Your task to perform on an android device: stop showing notifications on the lock screen Image 0: 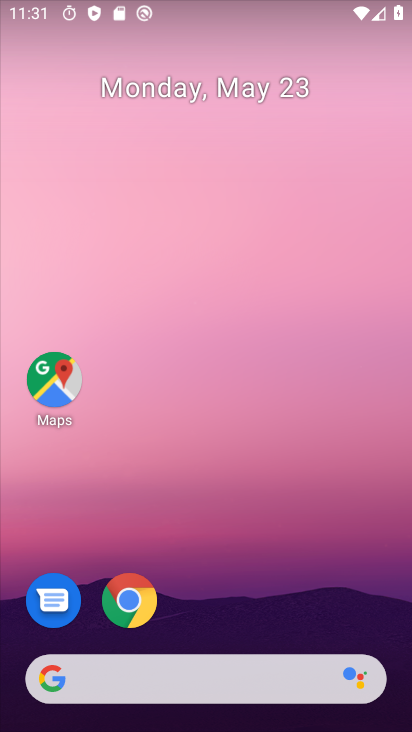
Step 0: drag from (220, 595) to (253, 123)
Your task to perform on an android device: stop showing notifications on the lock screen Image 1: 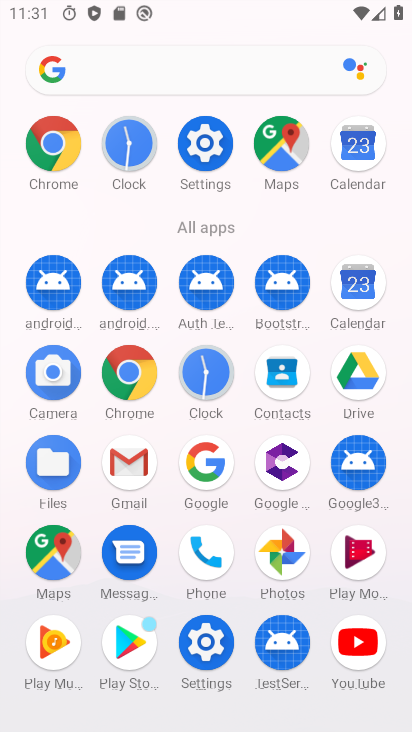
Step 1: click (211, 131)
Your task to perform on an android device: stop showing notifications on the lock screen Image 2: 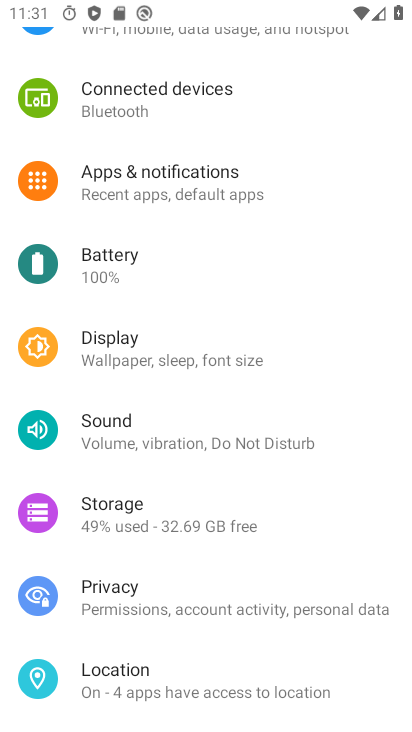
Step 2: click (197, 174)
Your task to perform on an android device: stop showing notifications on the lock screen Image 3: 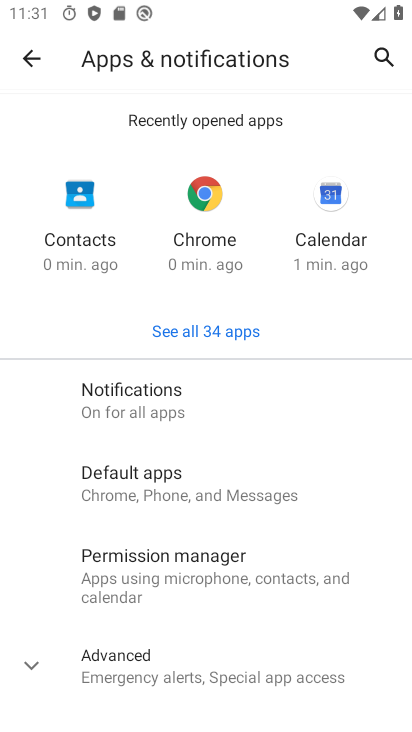
Step 3: click (158, 393)
Your task to perform on an android device: stop showing notifications on the lock screen Image 4: 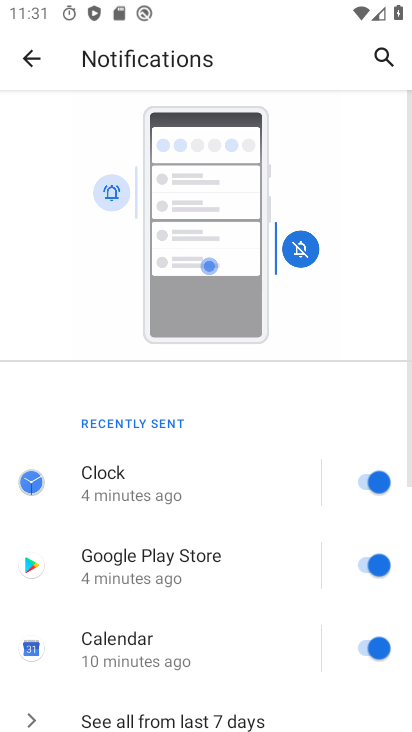
Step 4: drag from (165, 564) to (222, 134)
Your task to perform on an android device: stop showing notifications on the lock screen Image 5: 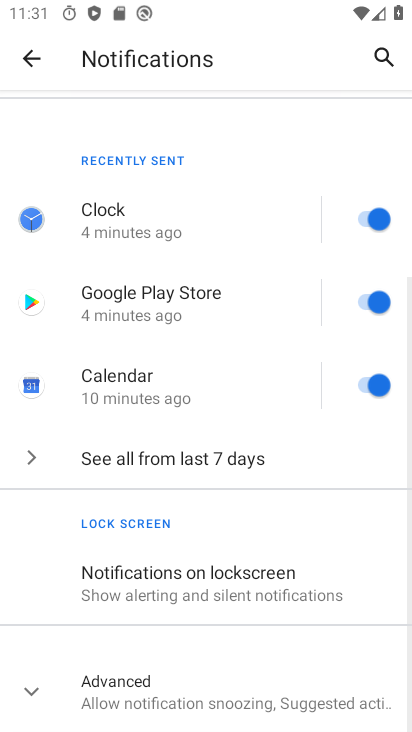
Step 5: click (180, 570)
Your task to perform on an android device: stop showing notifications on the lock screen Image 6: 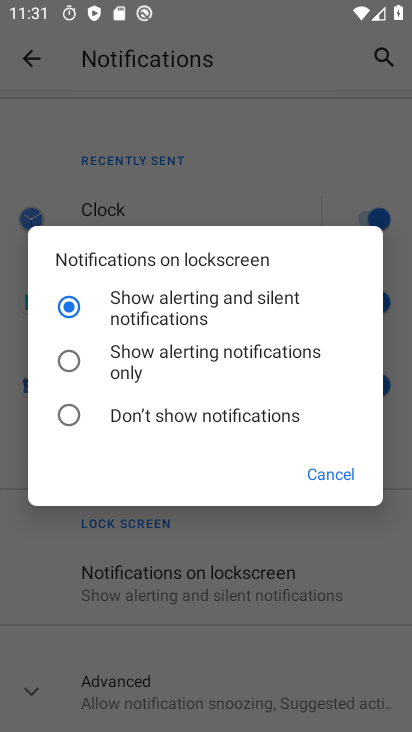
Step 6: click (180, 423)
Your task to perform on an android device: stop showing notifications on the lock screen Image 7: 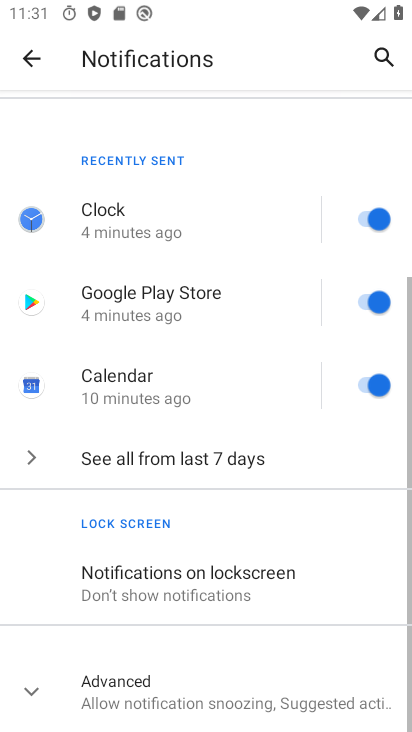
Step 7: task complete